Your task to perform on an android device: change keyboard looks Image 0: 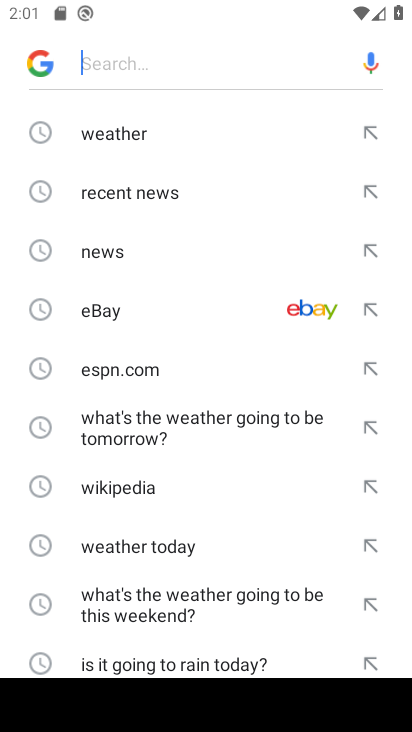
Step 0: press home button
Your task to perform on an android device: change keyboard looks Image 1: 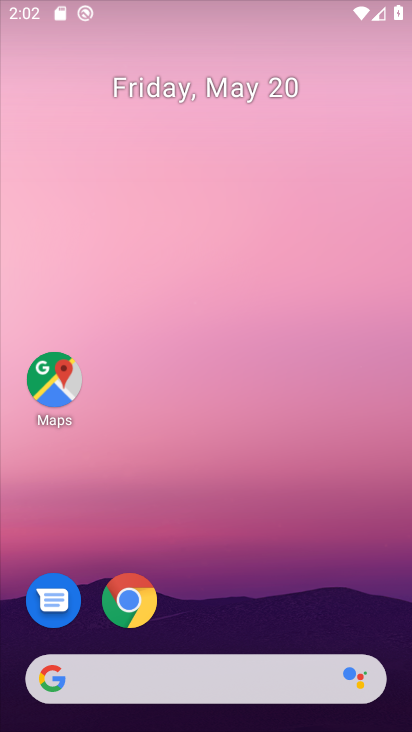
Step 1: drag from (271, 356) to (212, 27)
Your task to perform on an android device: change keyboard looks Image 2: 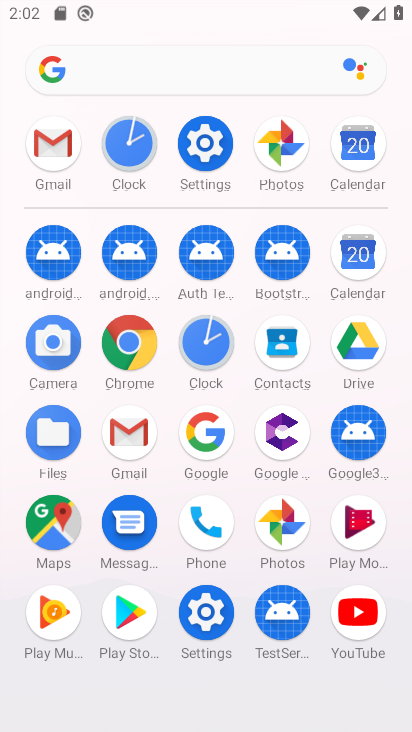
Step 2: click (202, 154)
Your task to perform on an android device: change keyboard looks Image 3: 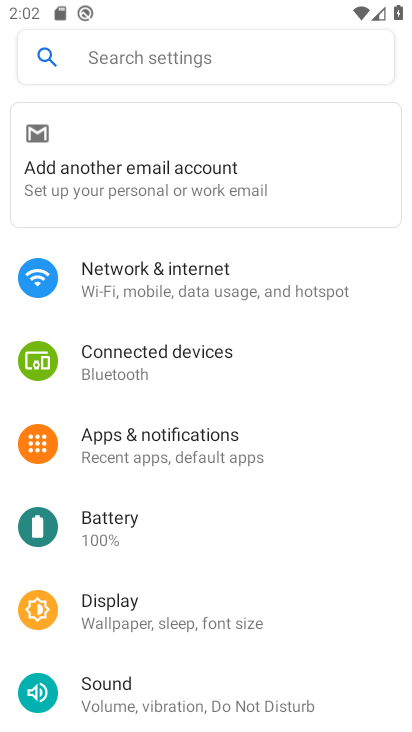
Step 3: drag from (256, 677) to (189, 115)
Your task to perform on an android device: change keyboard looks Image 4: 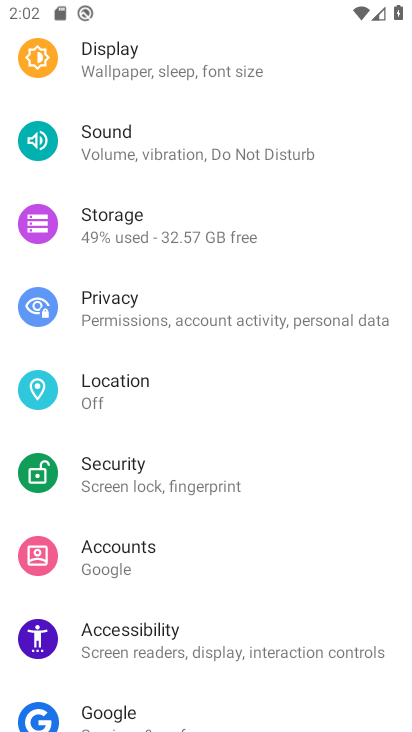
Step 4: drag from (225, 632) to (227, 33)
Your task to perform on an android device: change keyboard looks Image 5: 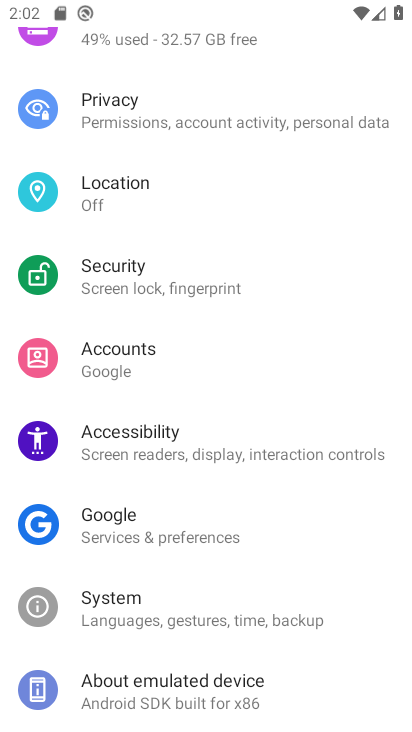
Step 5: click (198, 608)
Your task to perform on an android device: change keyboard looks Image 6: 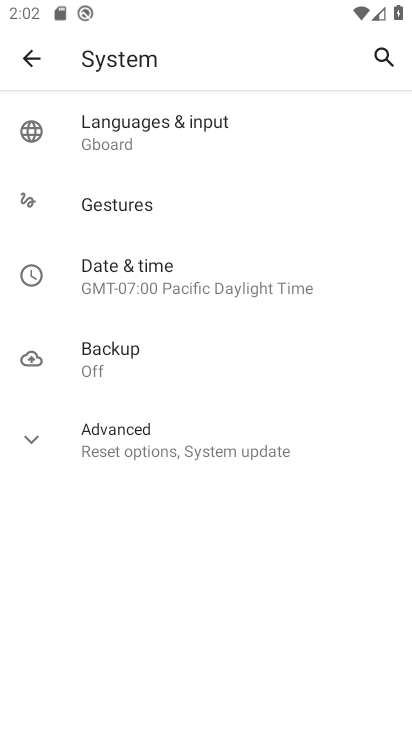
Step 6: click (138, 121)
Your task to perform on an android device: change keyboard looks Image 7: 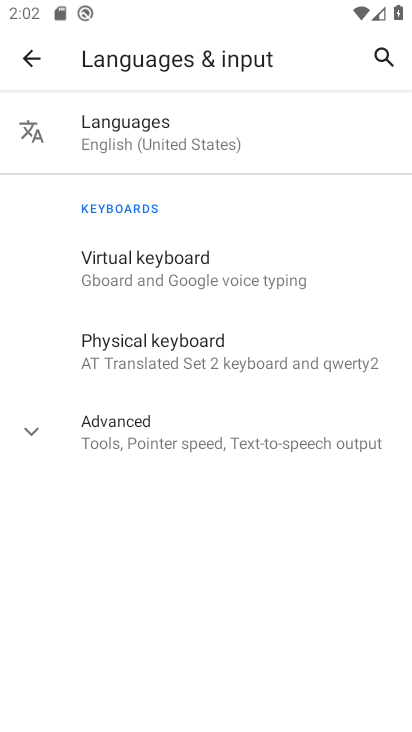
Step 7: click (128, 263)
Your task to perform on an android device: change keyboard looks Image 8: 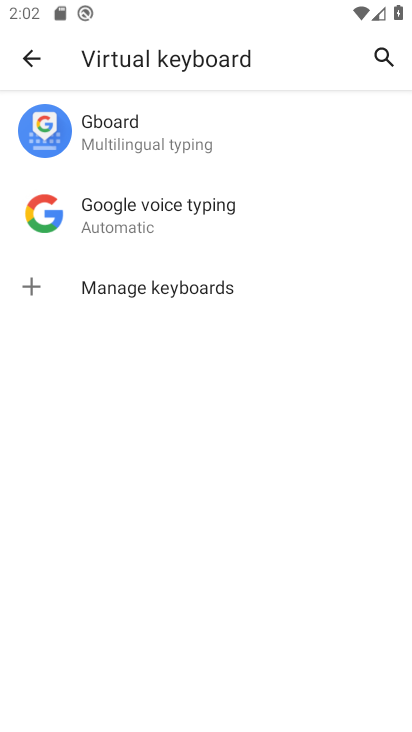
Step 8: click (154, 128)
Your task to perform on an android device: change keyboard looks Image 9: 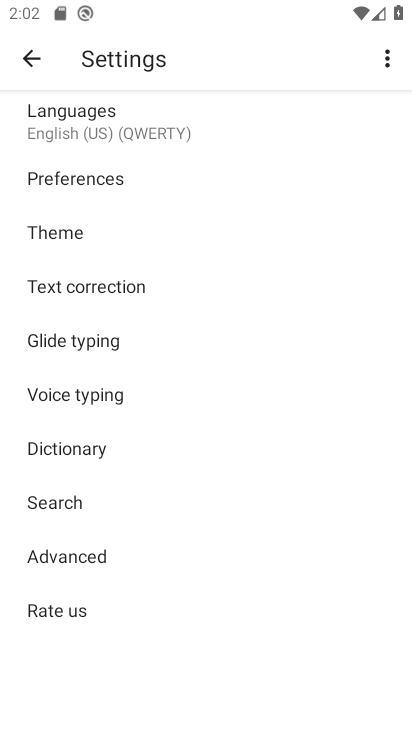
Step 9: click (124, 243)
Your task to perform on an android device: change keyboard looks Image 10: 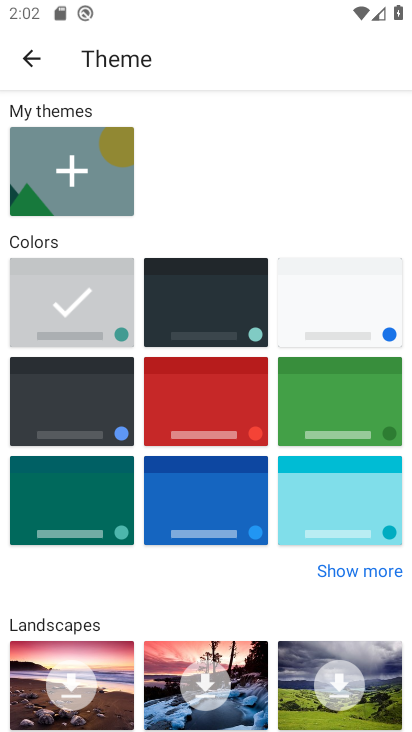
Step 10: click (199, 419)
Your task to perform on an android device: change keyboard looks Image 11: 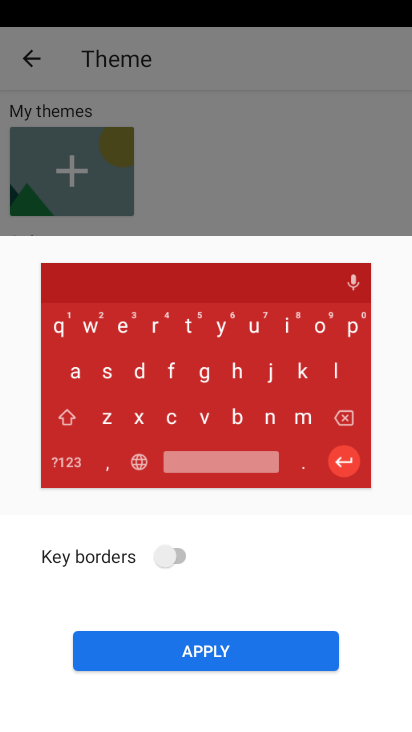
Step 11: click (225, 648)
Your task to perform on an android device: change keyboard looks Image 12: 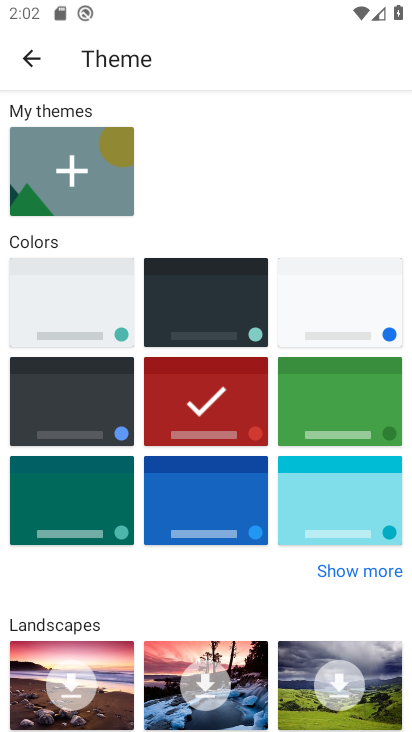
Step 12: task complete